Your task to perform on an android device: Open privacy settings Image 0: 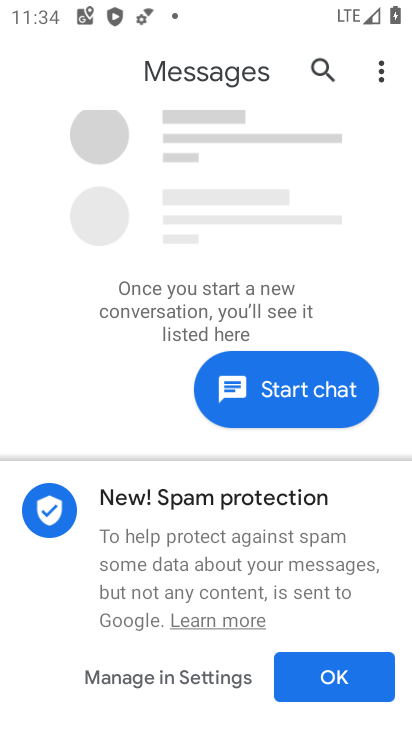
Step 0: press home button
Your task to perform on an android device: Open privacy settings Image 1: 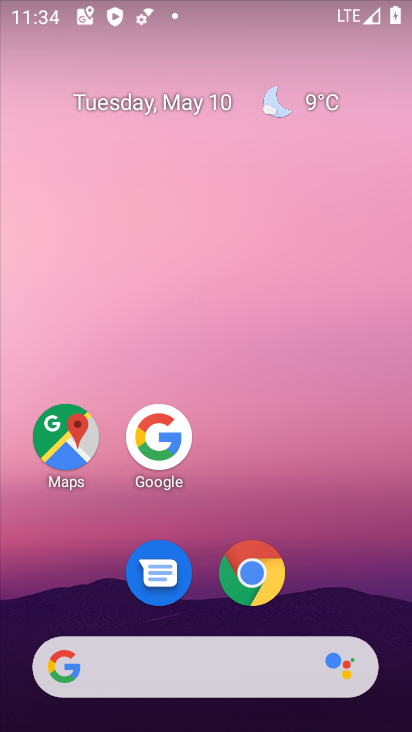
Step 1: drag from (160, 667) to (272, 181)
Your task to perform on an android device: Open privacy settings Image 2: 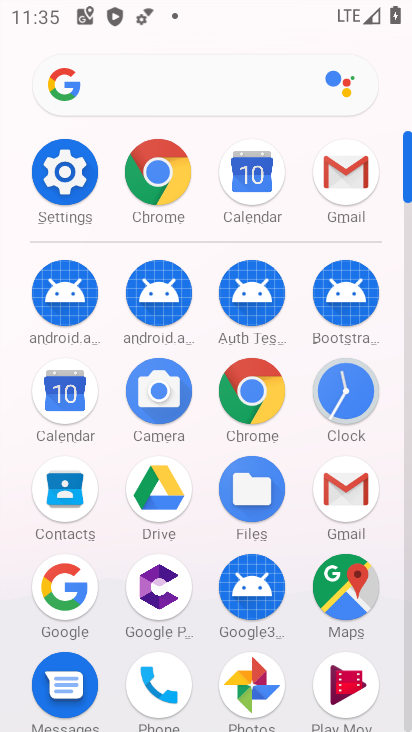
Step 2: click (63, 181)
Your task to perform on an android device: Open privacy settings Image 3: 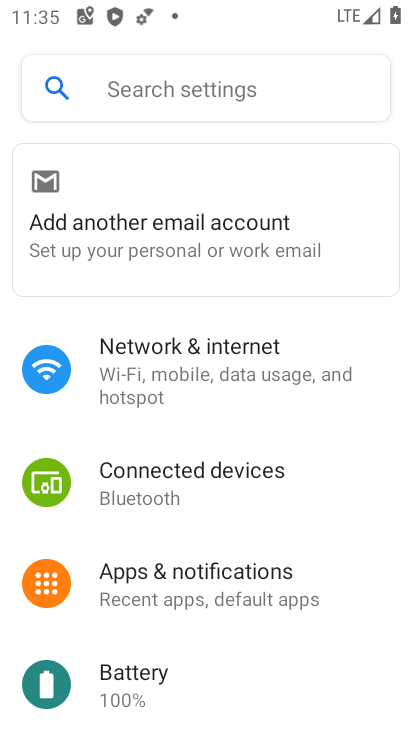
Step 3: drag from (216, 535) to (315, 113)
Your task to perform on an android device: Open privacy settings Image 4: 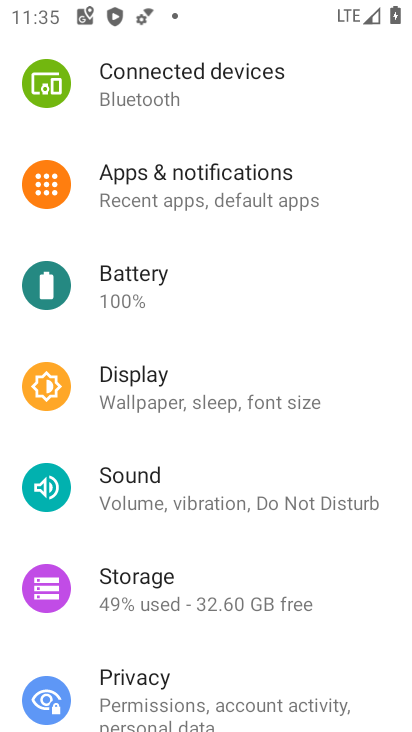
Step 4: click (142, 682)
Your task to perform on an android device: Open privacy settings Image 5: 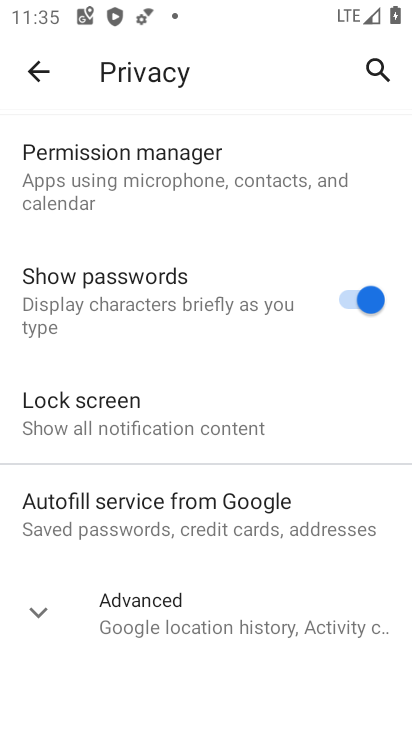
Step 5: task complete